Your task to perform on an android device: open app "WhatsApp Messenger" Image 0: 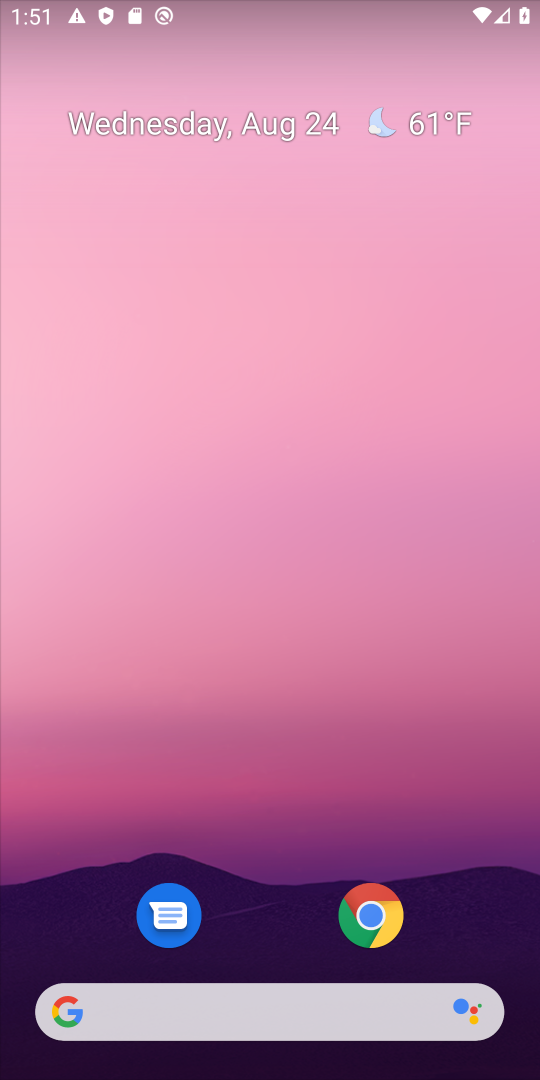
Step 0: drag from (286, 865) to (343, 200)
Your task to perform on an android device: open app "WhatsApp Messenger" Image 1: 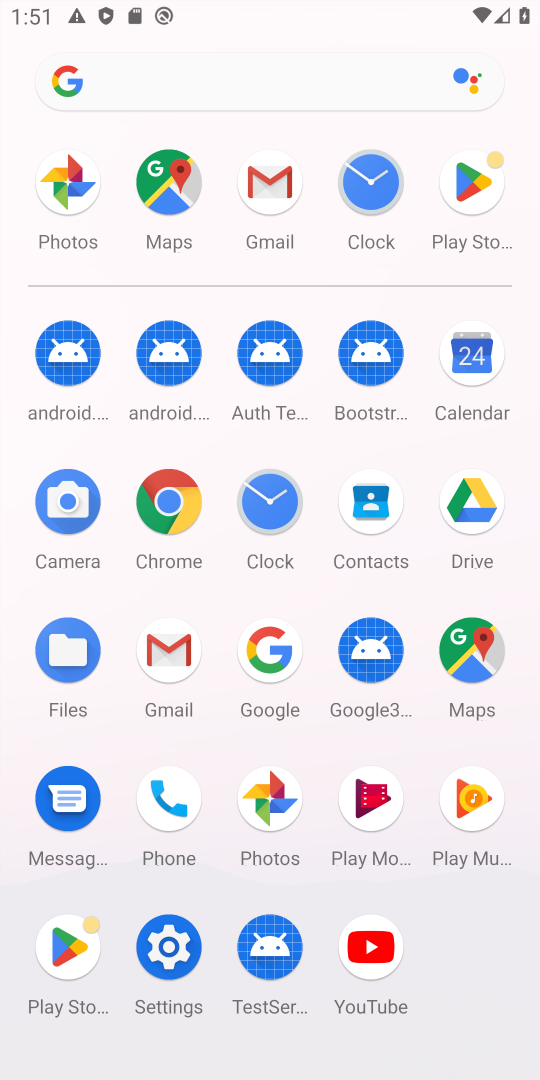
Step 1: click (481, 168)
Your task to perform on an android device: open app "WhatsApp Messenger" Image 2: 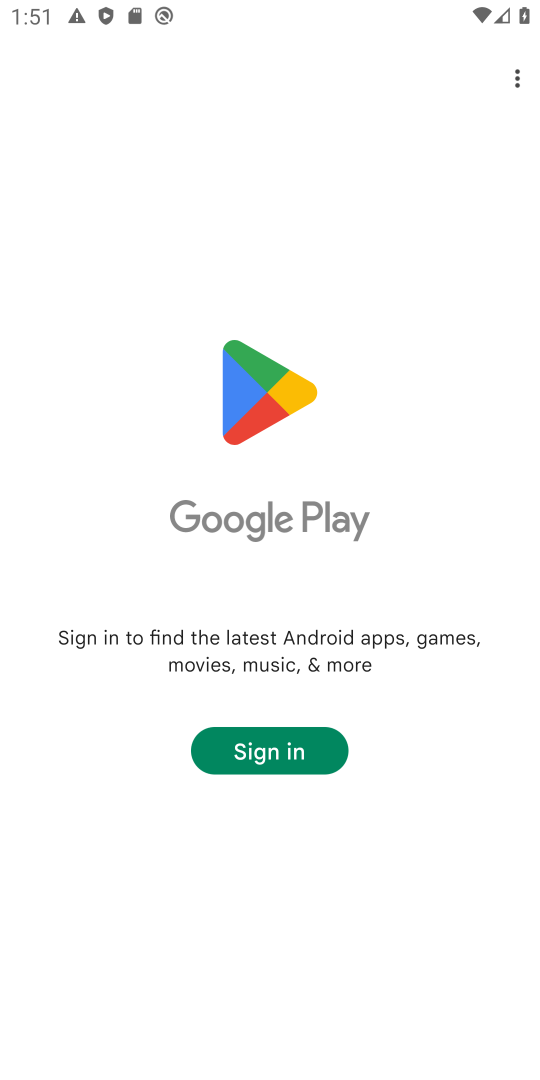
Step 2: task complete